Your task to perform on an android device: Open sound settings Image 0: 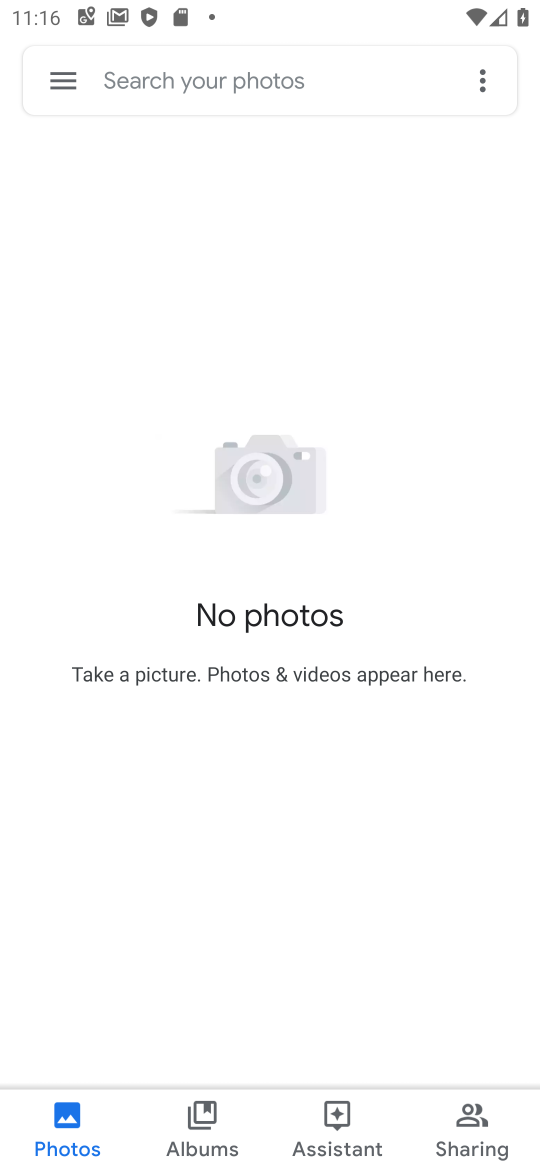
Step 0: press home button
Your task to perform on an android device: Open sound settings Image 1: 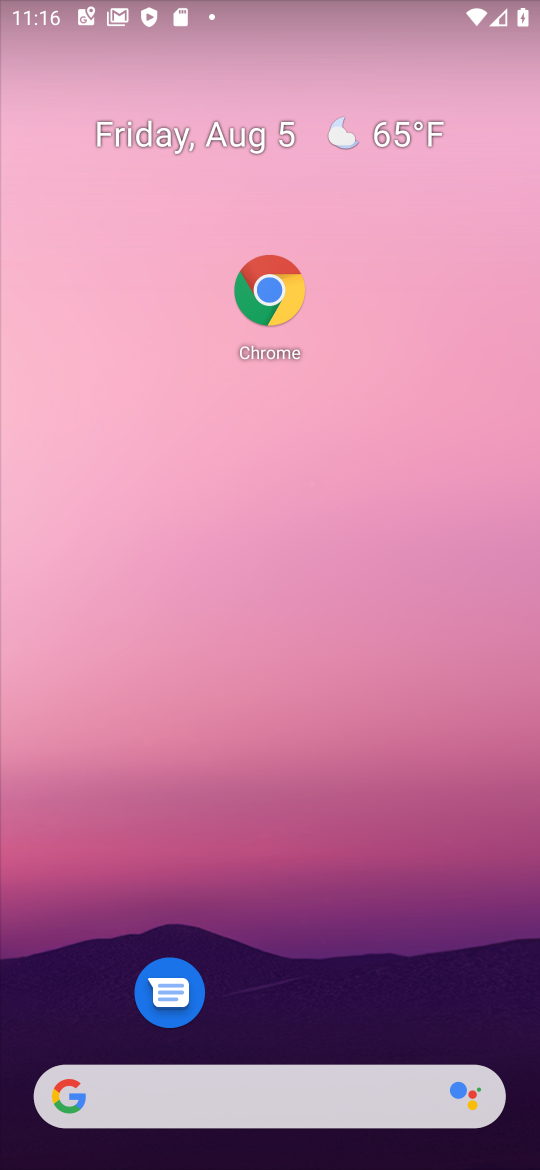
Step 1: drag from (384, 951) to (383, 60)
Your task to perform on an android device: Open sound settings Image 2: 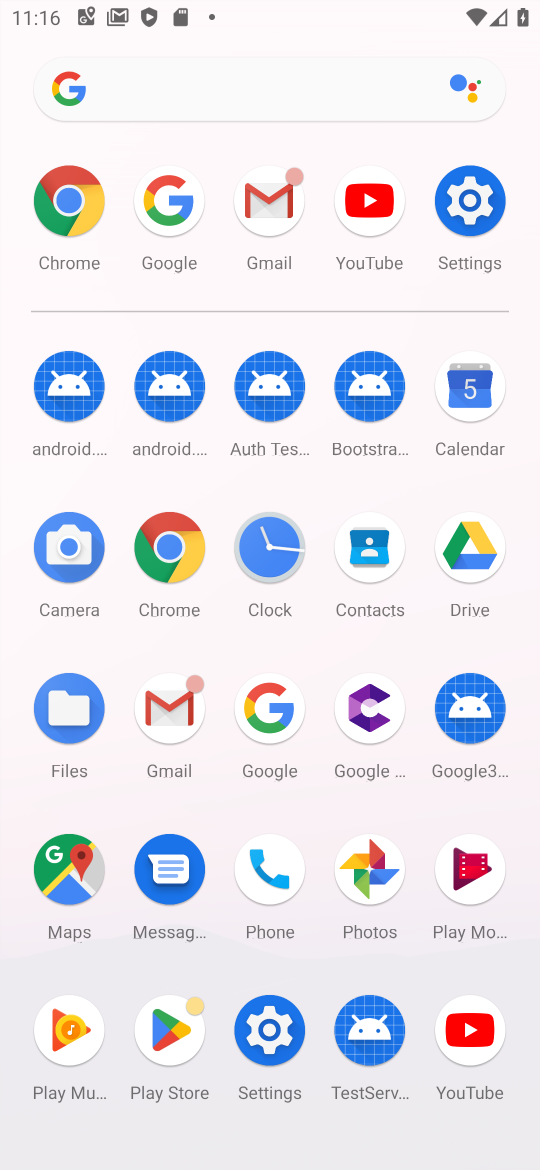
Step 2: click (463, 192)
Your task to perform on an android device: Open sound settings Image 3: 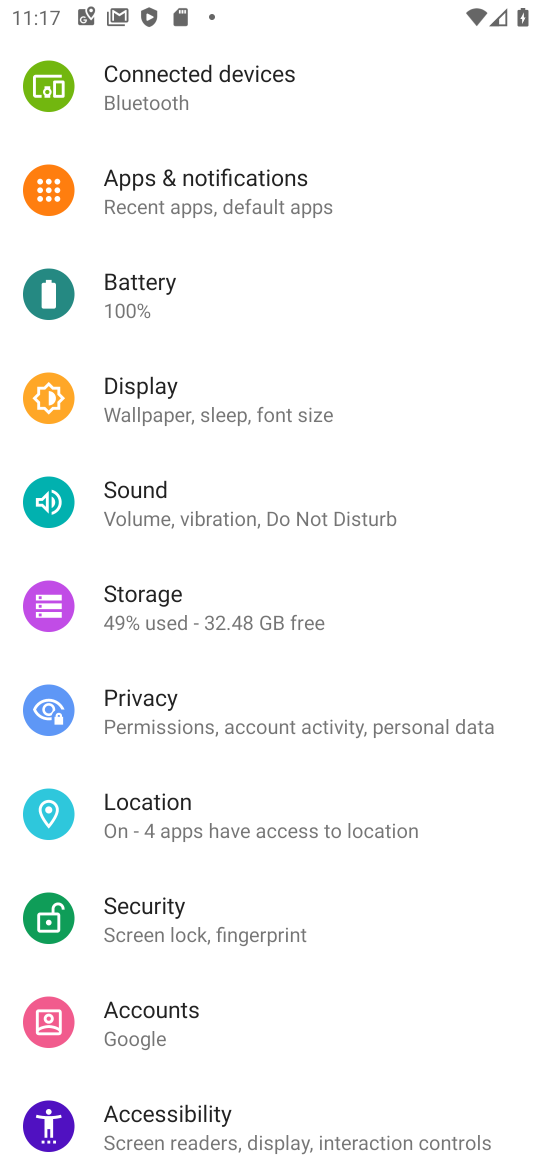
Step 3: drag from (226, 1034) to (277, 223)
Your task to perform on an android device: Open sound settings Image 4: 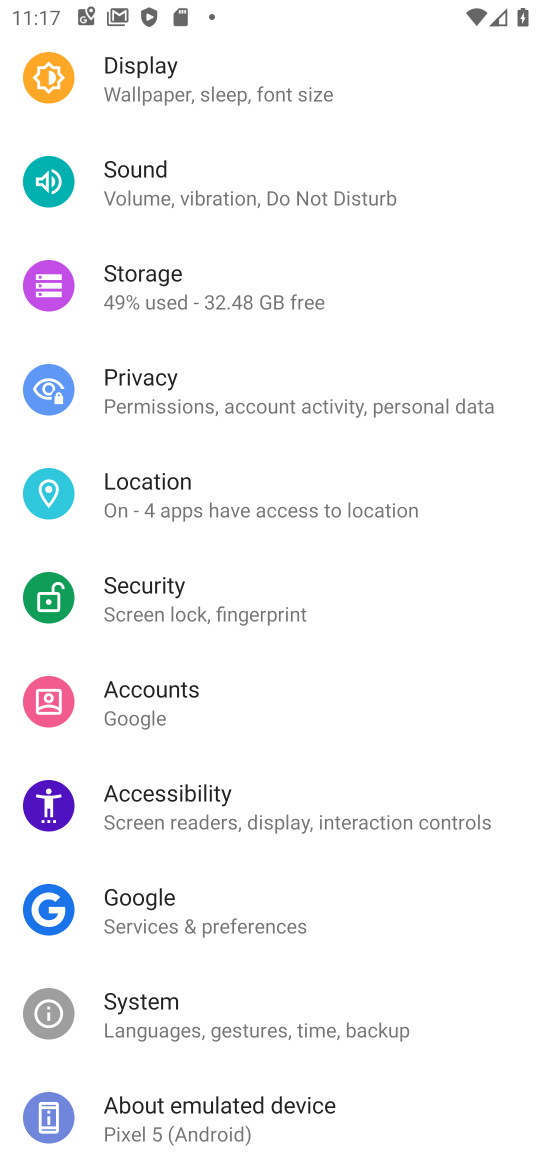
Step 4: click (231, 188)
Your task to perform on an android device: Open sound settings Image 5: 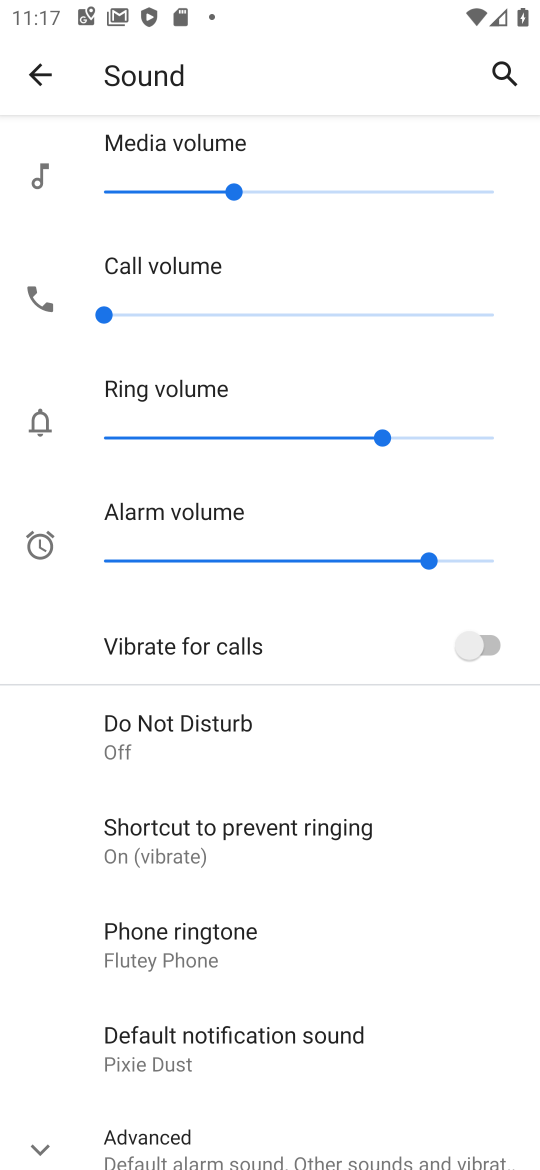
Step 5: task complete